Your task to perform on an android device: allow notifications from all sites in the chrome app Image 0: 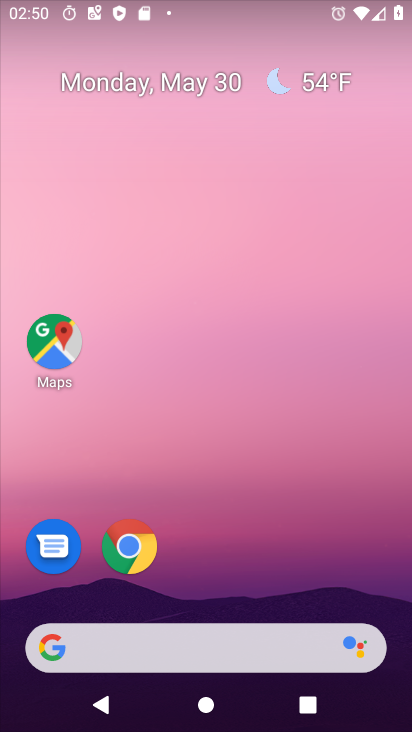
Step 0: click (128, 540)
Your task to perform on an android device: allow notifications from all sites in the chrome app Image 1: 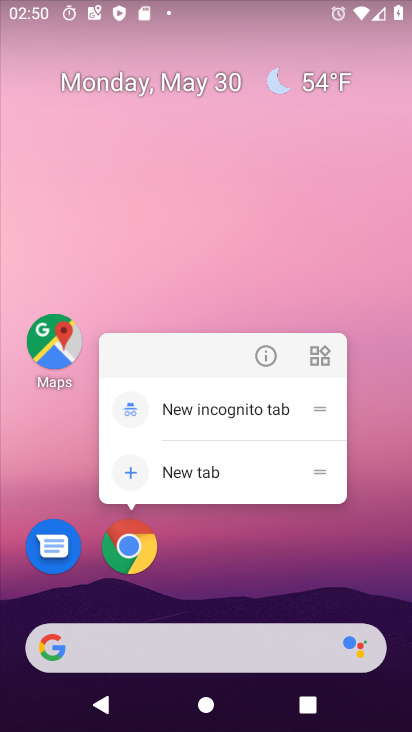
Step 1: click (127, 537)
Your task to perform on an android device: allow notifications from all sites in the chrome app Image 2: 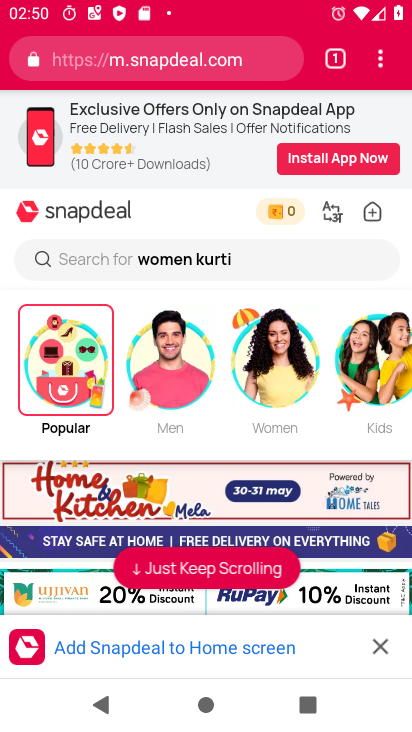
Step 2: click (376, 51)
Your task to perform on an android device: allow notifications from all sites in the chrome app Image 3: 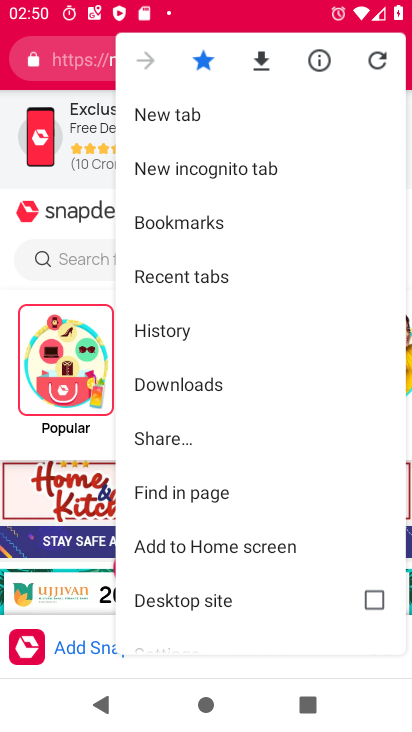
Step 3: drag from (265, 602) to (269, 129)
Your task to perform on an android device: allow notifications from all sites in the chrome app Image 4: 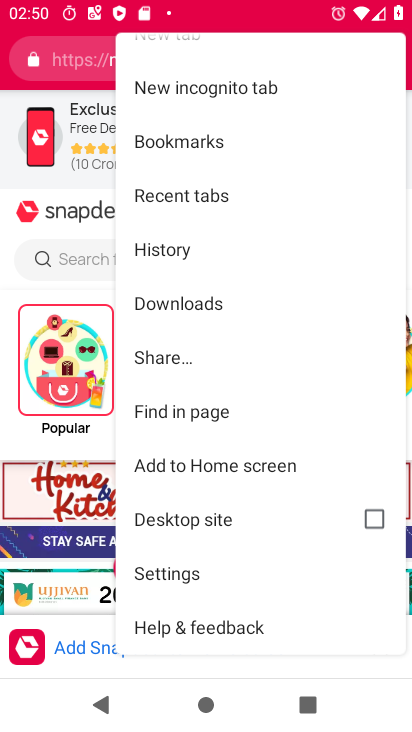
Step 4: click (216, 571)
Your task to perform on an android device: allow notifications from all sites in the chrome app Image 5: 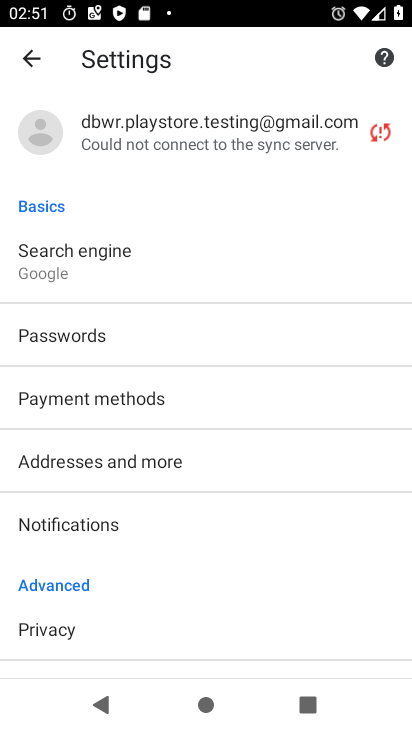
Step 5: drag from (197, 582) to (212, 172)
Your task to perform on an android device: allow notifications from all sites in the chrome app Image 6: 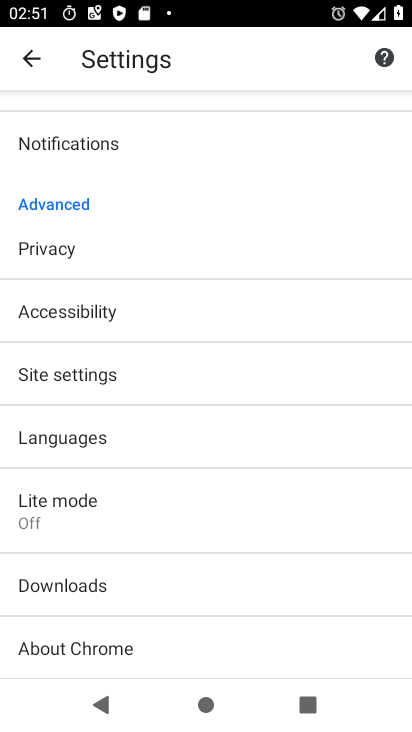
Step 6: click (134, 370)
Your task to perform on an android device: allow notifications from all sites in the chrome app Image 7: 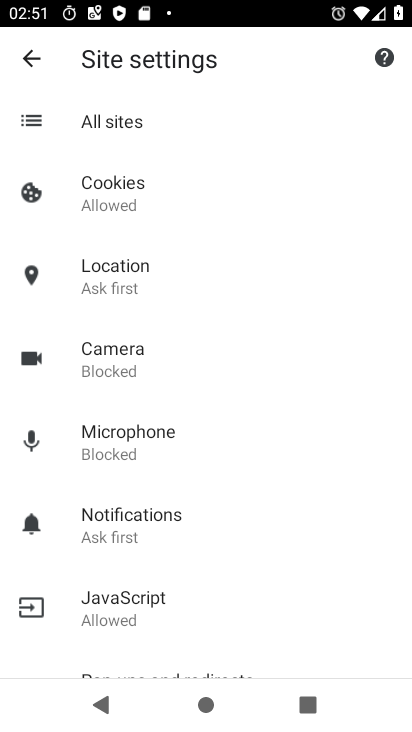
Step 7: click (150, 123)
Your task to perform on an android device: allow notifications from all sites in the chrome app Image 8: 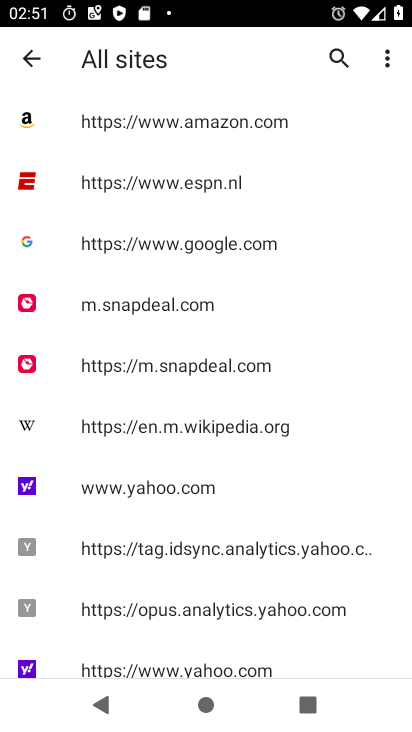
Step 8: click (90, 117)
Your task to perform on an android device: allow notifications from all sites in the chrome app Image 9: 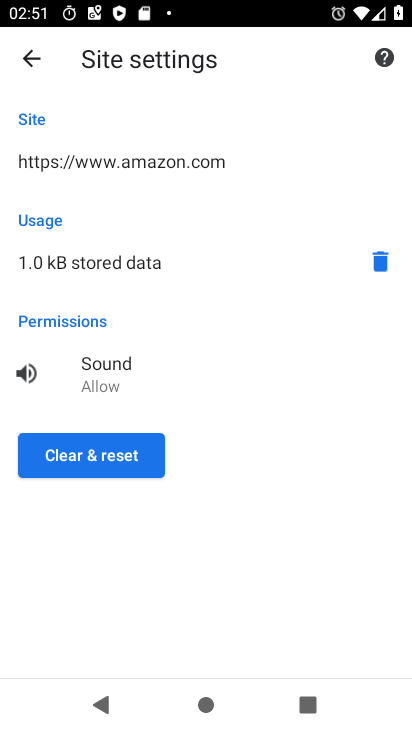
Step 9: click (28, 67)
Your task to perform on an android device: allow notifications from all sites in the chrome app Image 10: 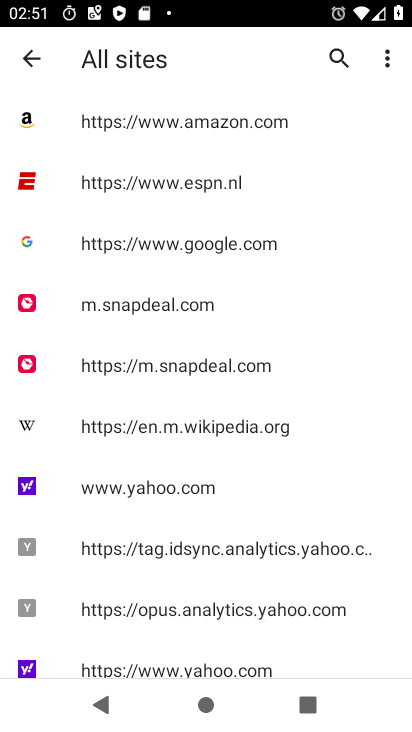
Step 10: click (62, 242)
Your task to perform on an android device: allow notifications from all sites in the chrome app Image 11: 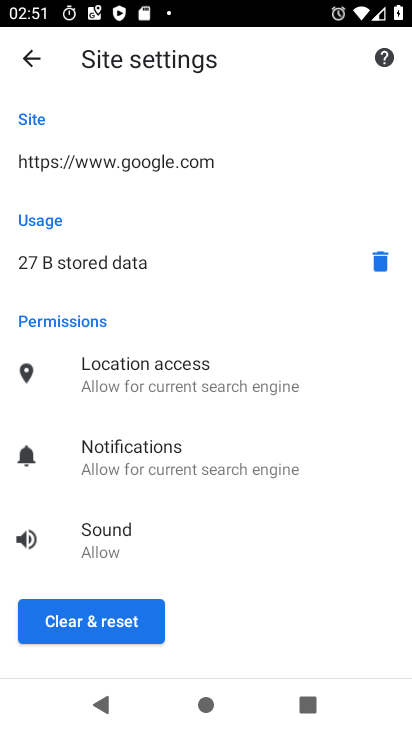
Step 11: task complete